Your task to perform on an android device: change the clock display to analog Image 0: 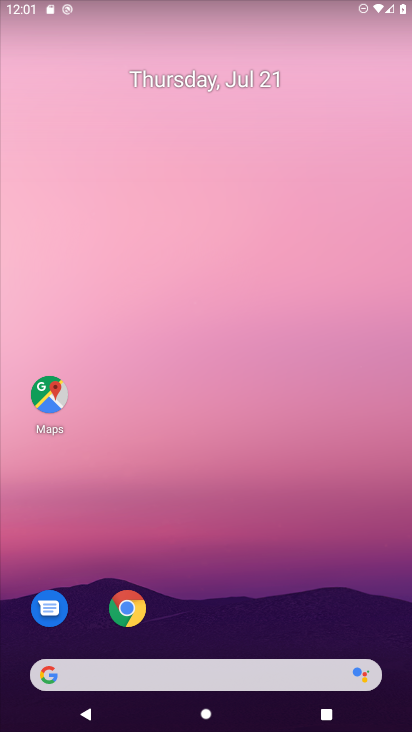
Step 0: press home button
Your task to perform on an android device: change the clock display to analog Image 1: 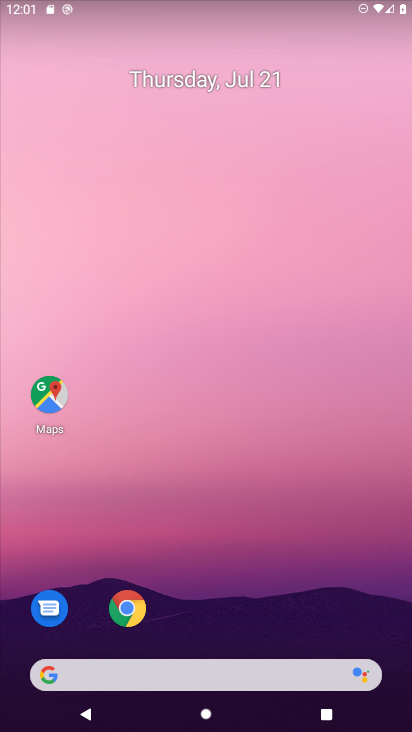
Step 1: drag from (332, 576) to (299, 90)
Your task to perform on an android device: change the clock display to analog Image 2: 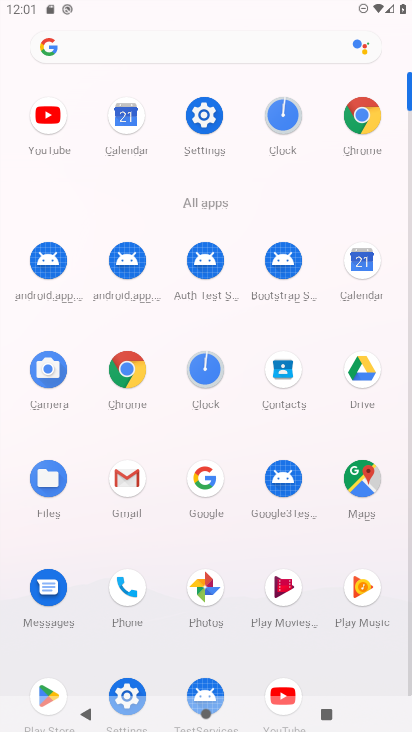
Step 2: click (287, 107)
Your task to perform on an android device: change the clock display to analog Image 3: 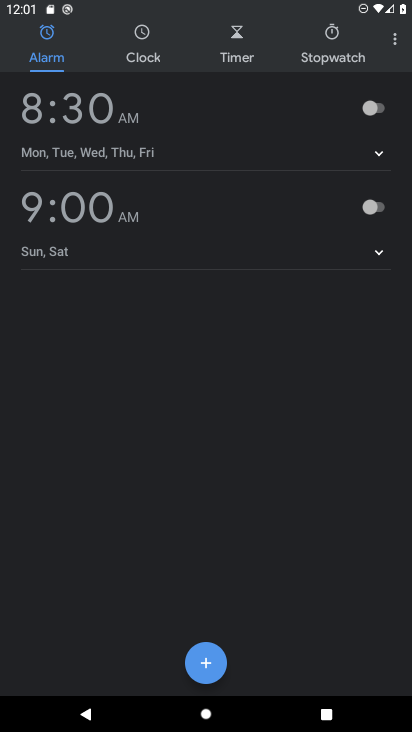
Step 3: click (398, 35)
Your task to perform on an android device: change the clock display to analog Image 4: 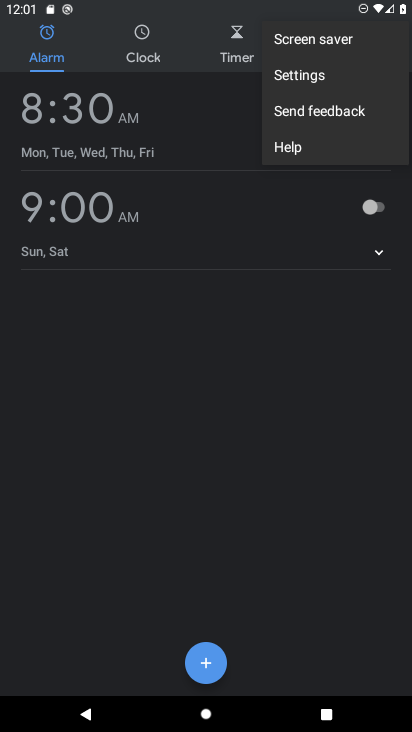
Step 4: click (309, 75)
Your task to perform on an android device: change the clock display to analog Image 5: 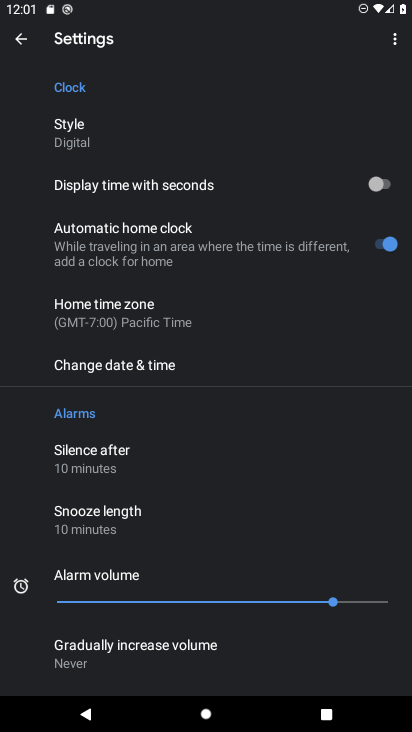
Step 5: click (75, 139)
Your task to perform on an android device: change the clock display to analog Image 6: 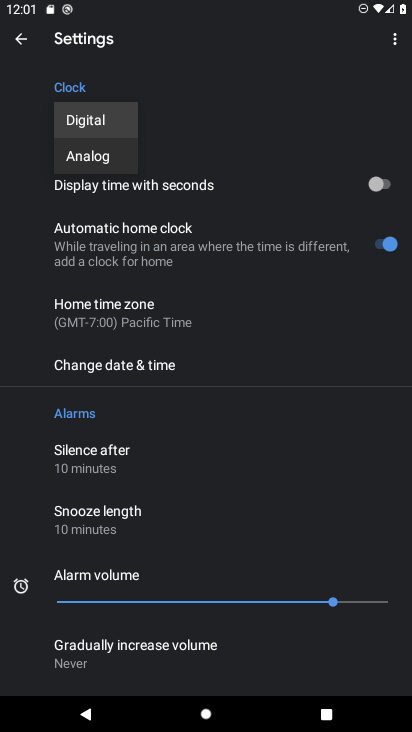
Step 6: click (86, 154)
Your task to perform on an android device: change the clock display to analog Image 7: 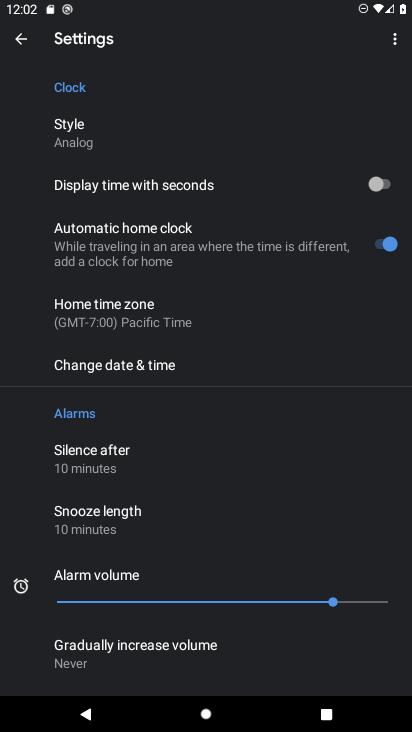
Step 7: task complete